Your task to perform on an android device: all mails in gmail Image 0: 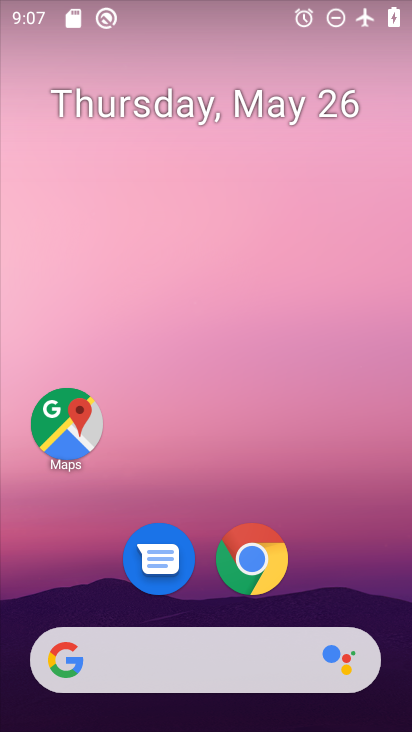
Step 0: drag from (354, 569) to (324, 84)
Your task to perform on an android device: all mails in gmail Image 1: 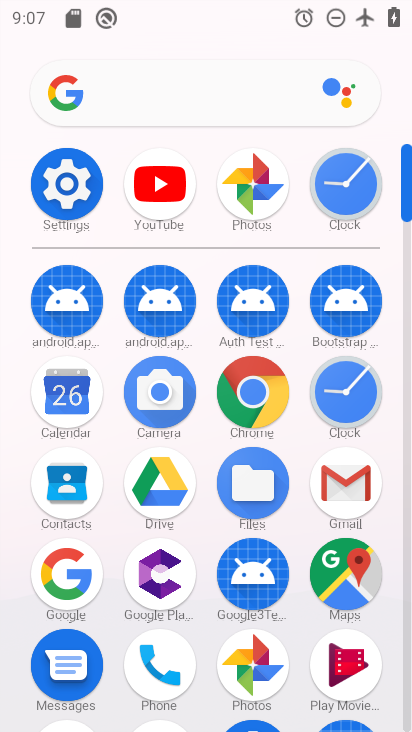
Step 1: click (354, 486)
Your task to perform on an android device: all mails in gmail Image 2: 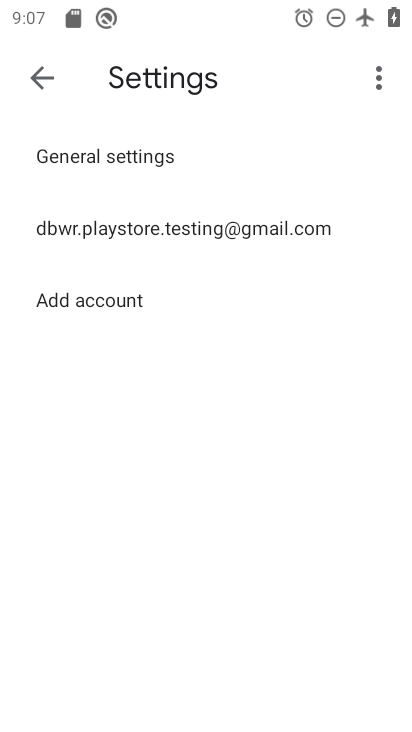
Step 2: press back button
Your task to perform on an android device: all mails in gmail Image 3: 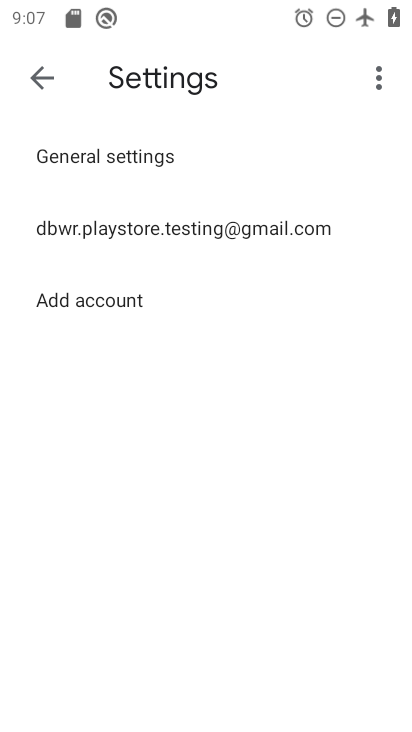
Step 3: press back button
Your task to perform on an android device: all mails in gmail Image 4: 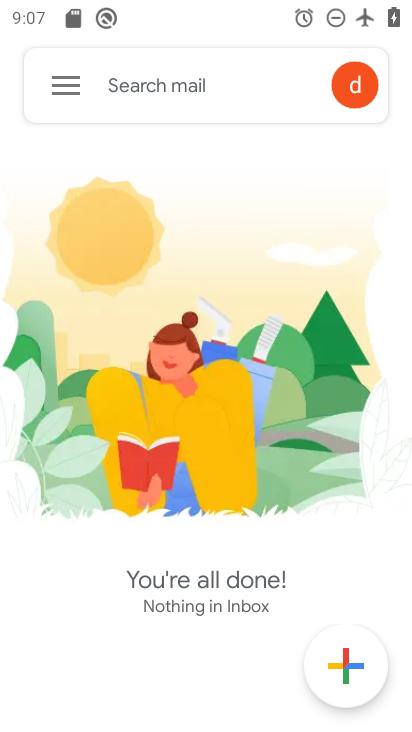
Step 4: click (72, 85)
Your task to perform on an android device: all mails in gmail Image 5: 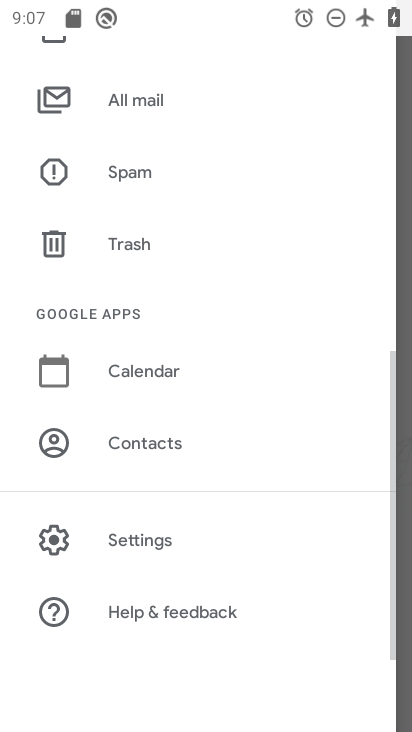
Step 5: click (107, 117)
Your task to perform on an android device: all mails in gmail Image 6: 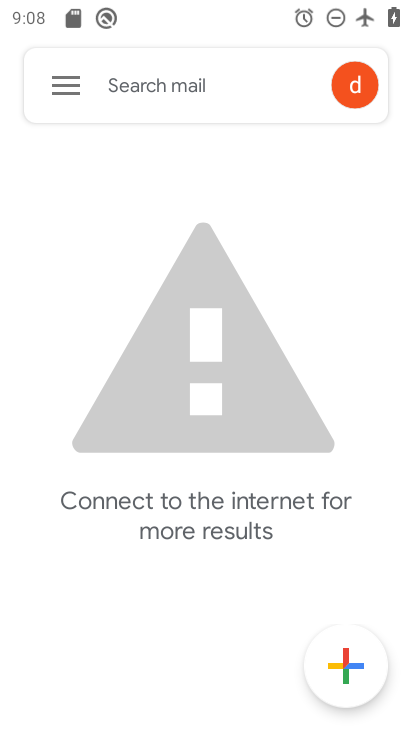
Step 6: task complete